Your task to perform on an android device: toggle airplane mode Image 0: 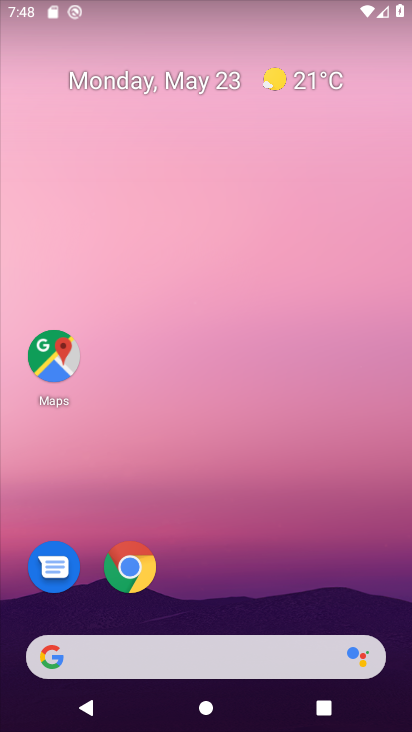
Step 0: drag from (165, 610) to (334, 0)
Your task to perform on an android device: toggle airplane mode Image 1: 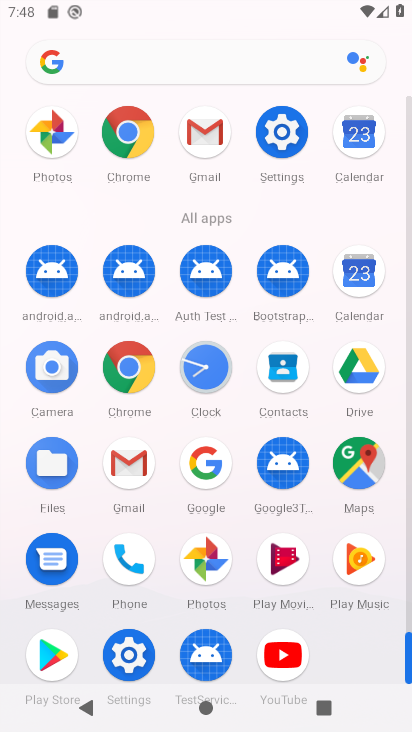
Step 1: click (128, 653)
Your task to perform on an android device: toggle airplane mode Image 2: 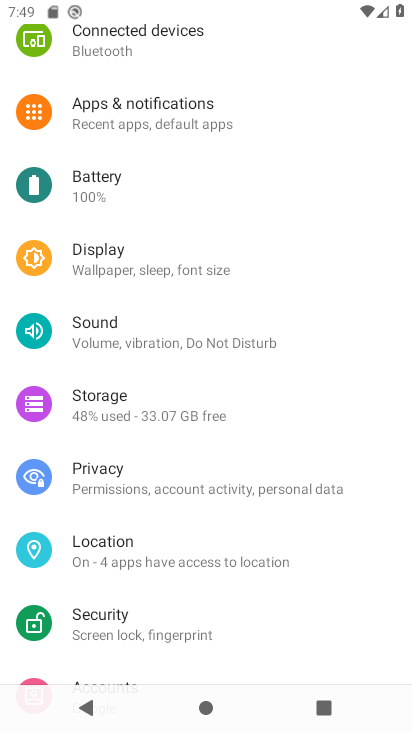
Step 2: drag from (220, 115) to (205, 494)
Your task to perform on an android device: toggle airplane mode Image 3: 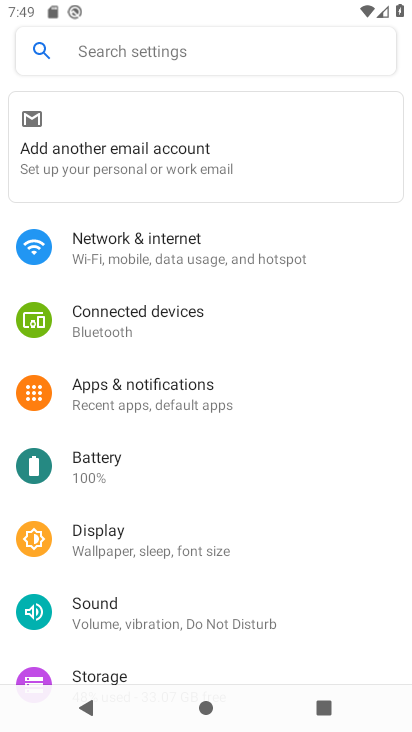
Step 3: click (235, 269)
Your task to perform on an android device: toggle airplane mode Image 4: 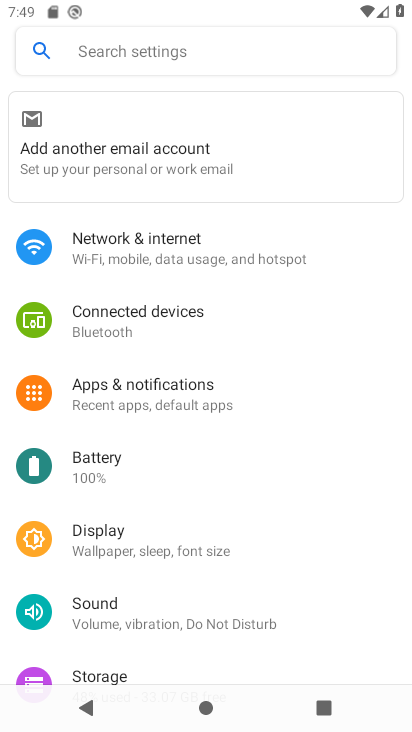
Step 4: click (234, 267)
Your task to perform on an android device: toggle airplane mode Image 5: 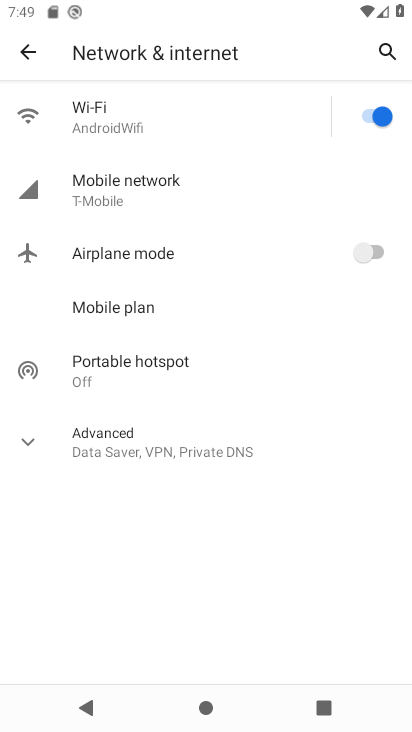
Step 5: click (206, 284)
Your task to perform on an android device: toggle airplane mode Image 6: 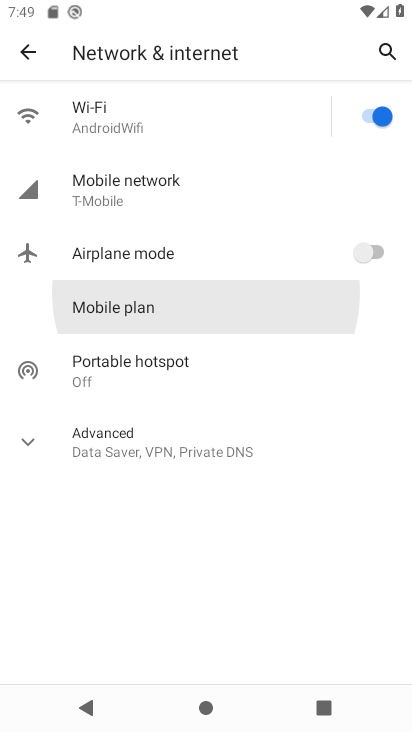
Step 6: click (206, 284)
Your task to perform on an android device: toggle airplane mode Image 7: 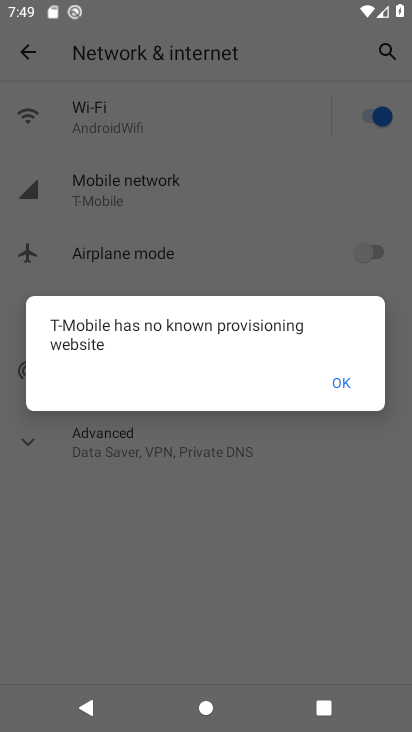
Step 7: click (336, 389)
Your task to perform on an android device: toggle airplane mode Image 8: 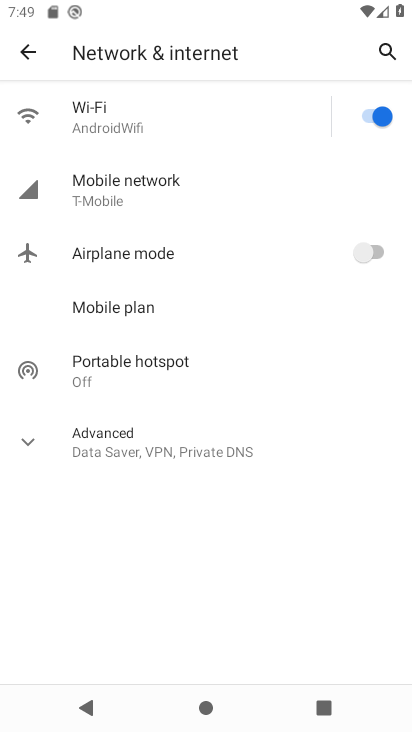
Step 8: click (392, 247)
Your task to perform on an android device: toggle airplane mode Image 9: 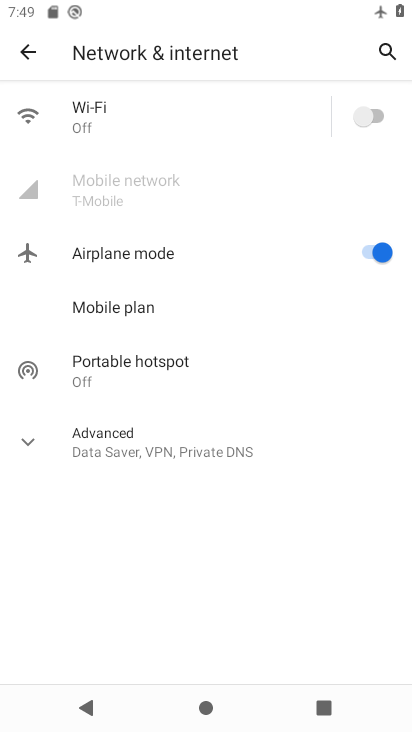
Step 9: task complete